Your task to perform on an android device: Toggle the flashlight Image 0: 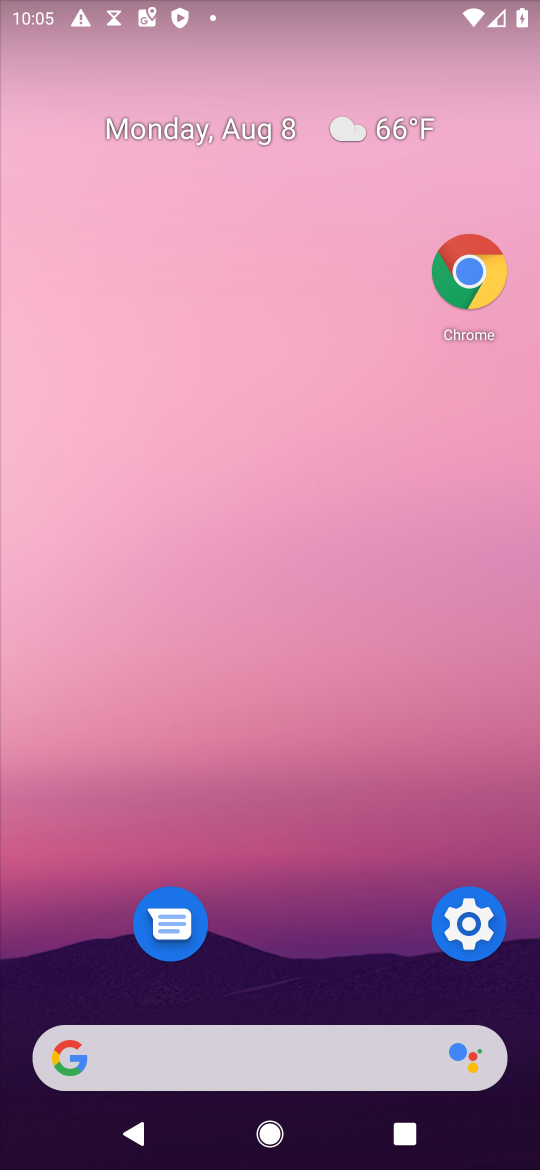
Step 0: press home button
Your task to perform on an android device: Toggle the flashlight Image 1: 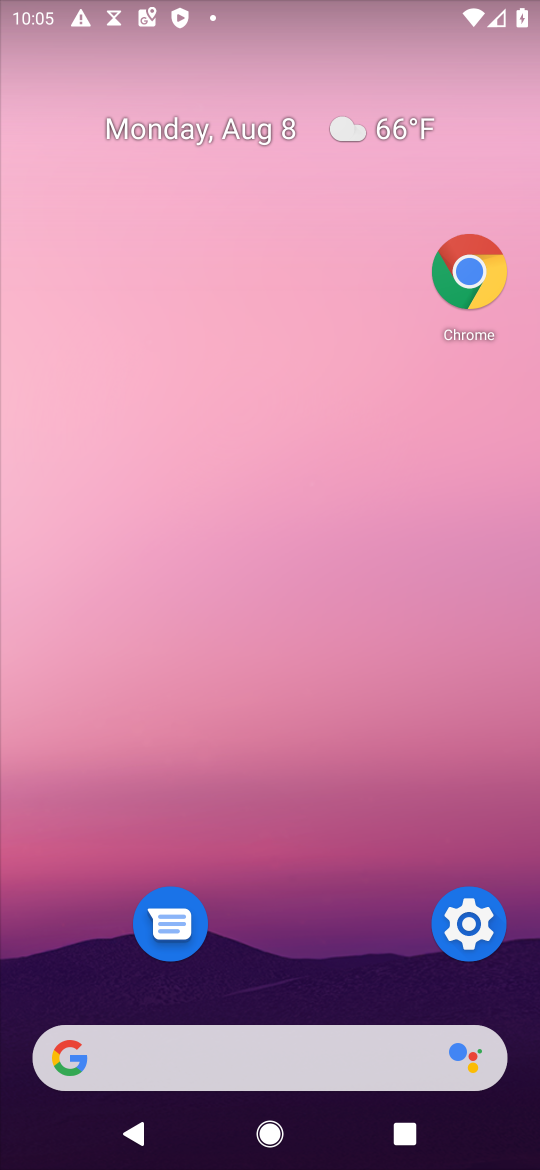
Step 1: task complete